Your task to perform on an android device: Go to settings Image 0: 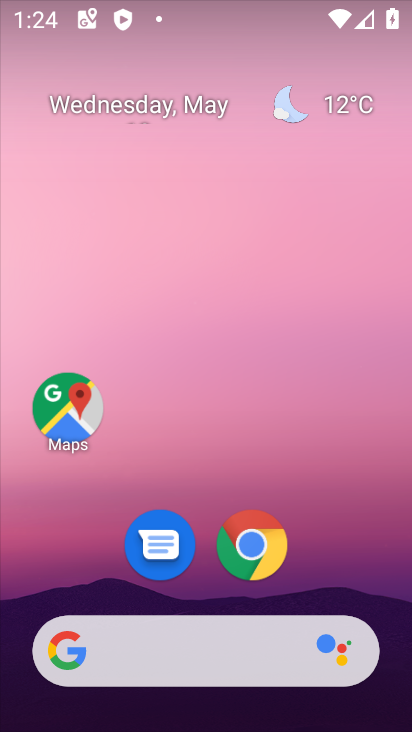
Step 0: drag from (353, 555) to (323, 102)
Your task to perform on an android device: Go to settings Image 1: 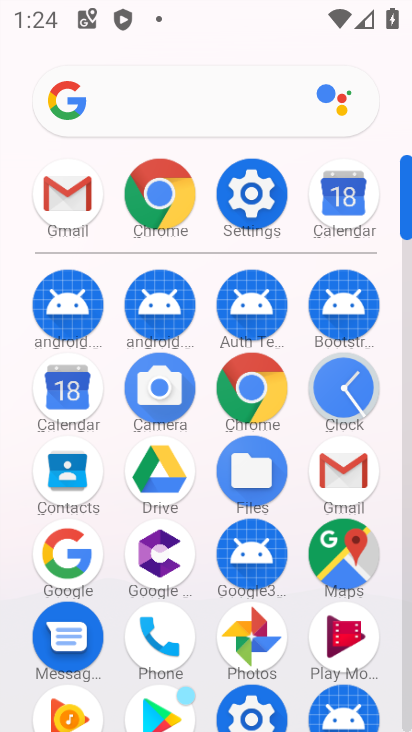
Step 1: click (239, 211)
Your task to perform on an android device: Go to settings Image 2: 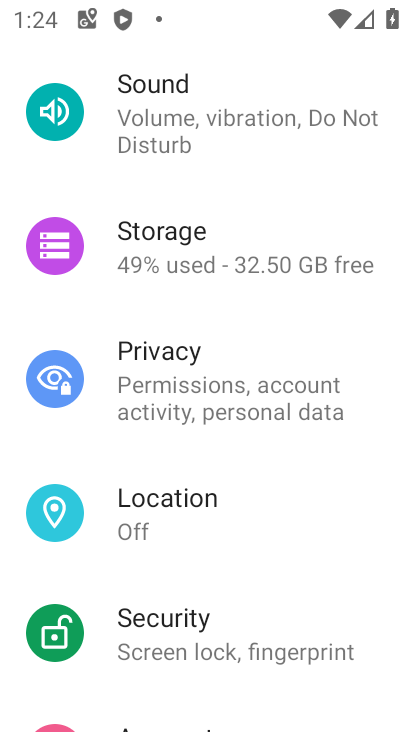
Step 2: task complete